Your task to perform on an android device: What's a good restaurant in San Diego? Image 0: 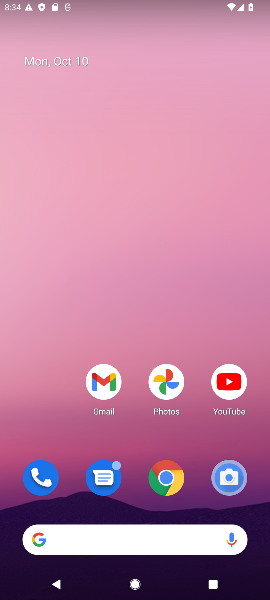
Step 0: click (167, 471)
Your task to perform on an android device: What's a good restaurant in San Diego? Image 1: 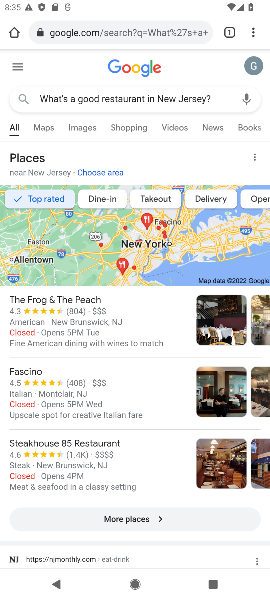
Step 1: click (101, 33)
Your task to perform on an android device: What's a good restaurant in San Diego? Image 2: 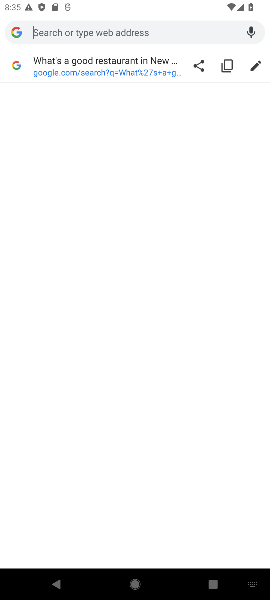
Step 2: type "What's a good restaurant in San Diego?"
Your task to perform on an android device: What's a good restaurant in San Diego? Image 3: 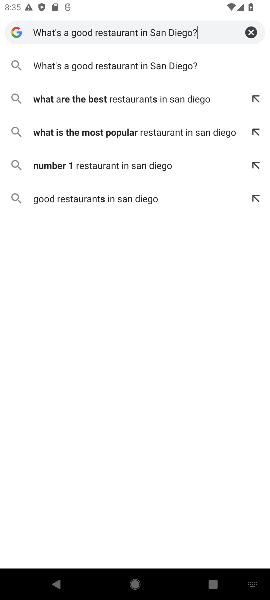
Step 3: click (173, 69)
Your task to perform on an android device: What's a good restaurant in San Diego? Image 4: 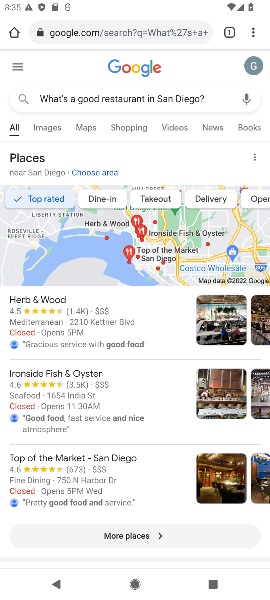
Step 4: task complete